Your task to perform on an android device: check storage Image 0: 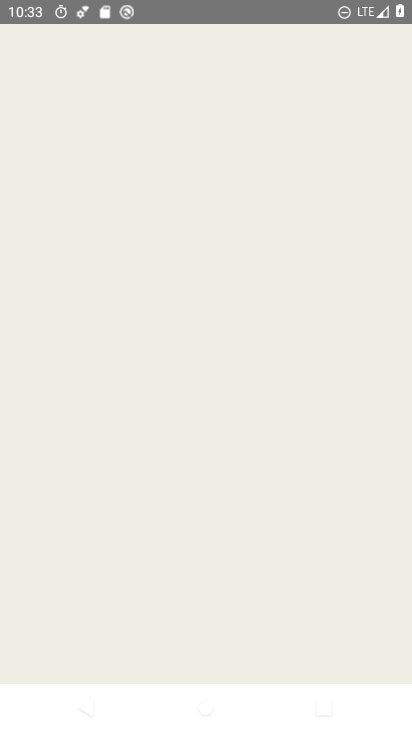
Step 0: click (205, 237)
Your task to perform on an android device: check storage Image 1: 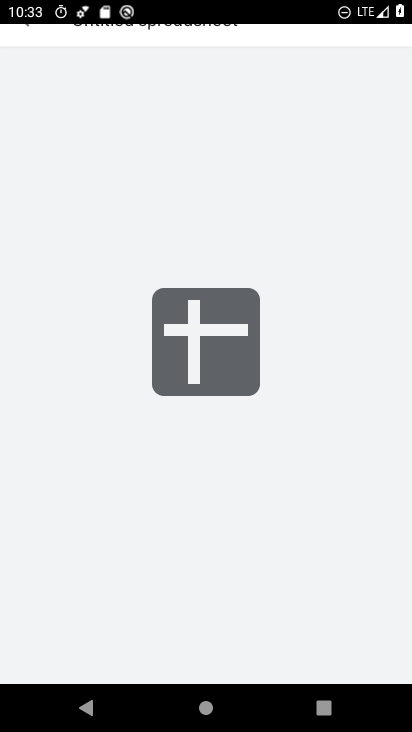
Step 1: press home button
Your task to perform on an android device: check storage Image 2: 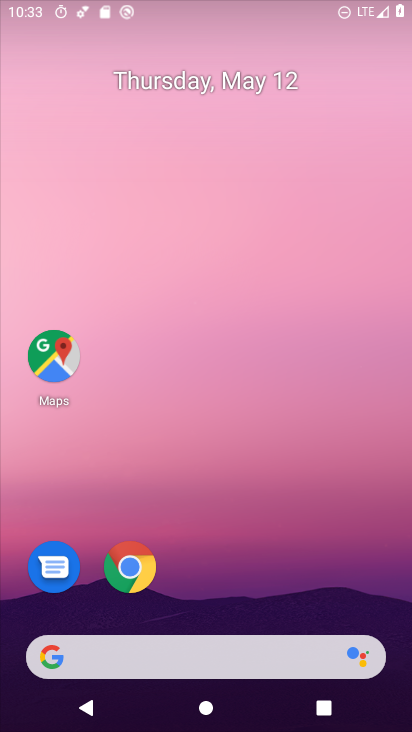
Step 2: drag from (180, 648) to (175, 242)
Your task to perform on an android device: check storage Image 3: 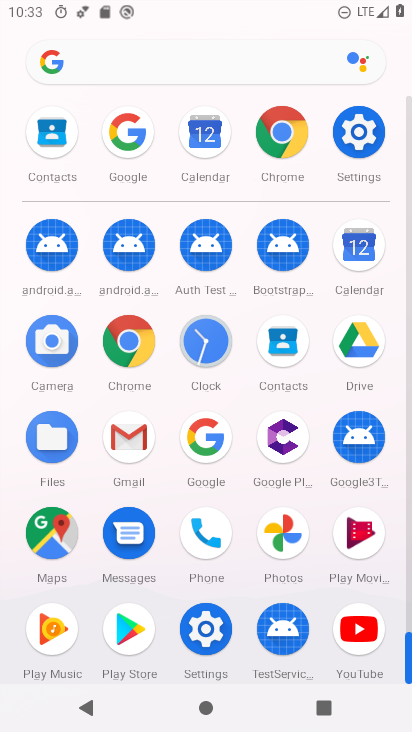
Step 3: click (360, 165)
Your task to perform on an android device: check storage Image 4: 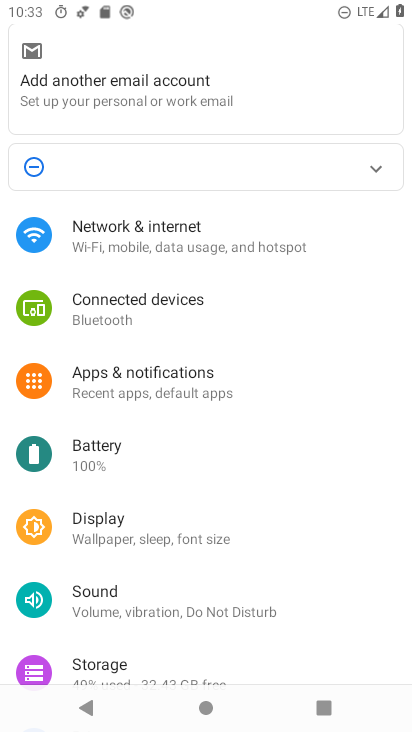
Step 4: drag from (148, 561) to (151, 335)
Your task to perform on an android device: check storage Image 5: 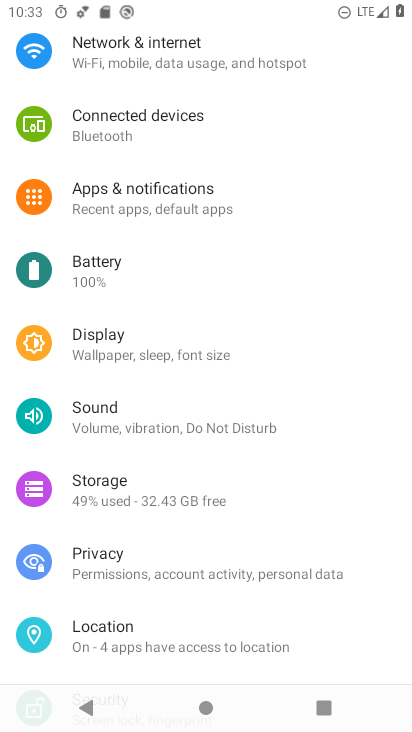
Step 5: click (150, 487)
Your task to perform on an android device: check storage Image 6: 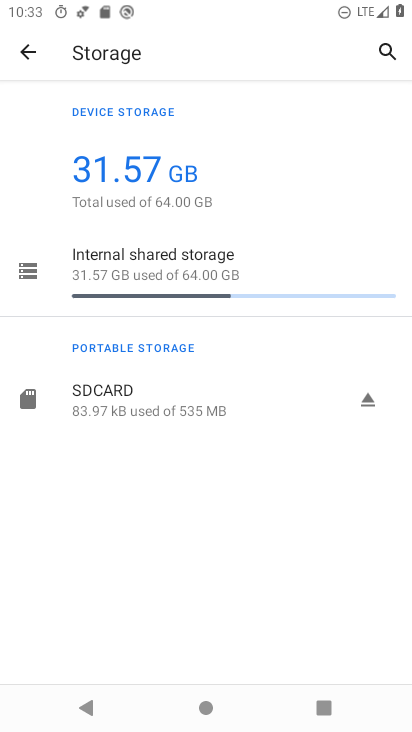
Step 6: click (126, 263)
Your task to perform on an android device: check storage Image 7: 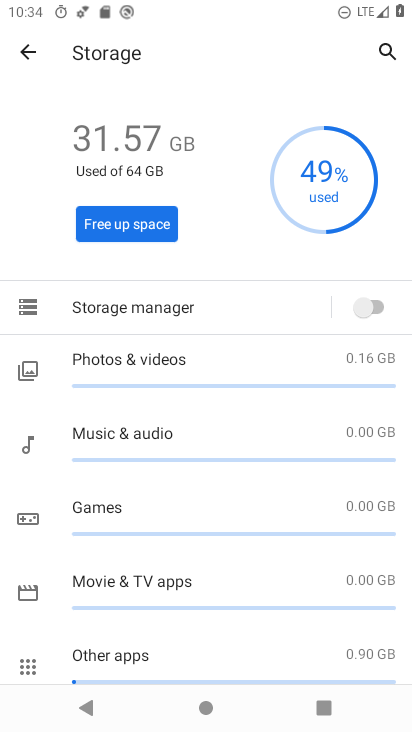
Step 7: task complete